Your task to perform on an android device: turn on translation in the chrome app Image 0: 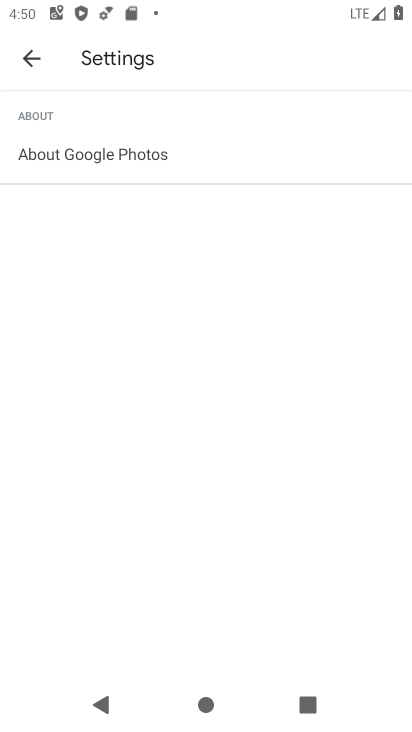
Step 0: press home button
Your task to perform on an android device: turn on translation in the chrome app Image 1: 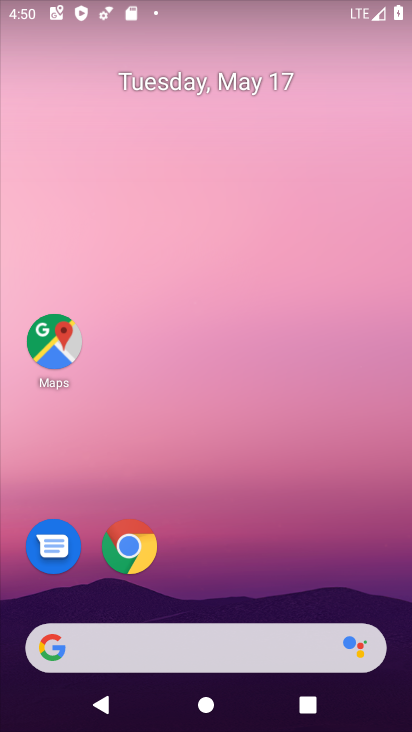
Step 1: drag from (219, 606) to (232, 10)
Your task to perform on an android device: turn on translation in the chrome app Image 2: 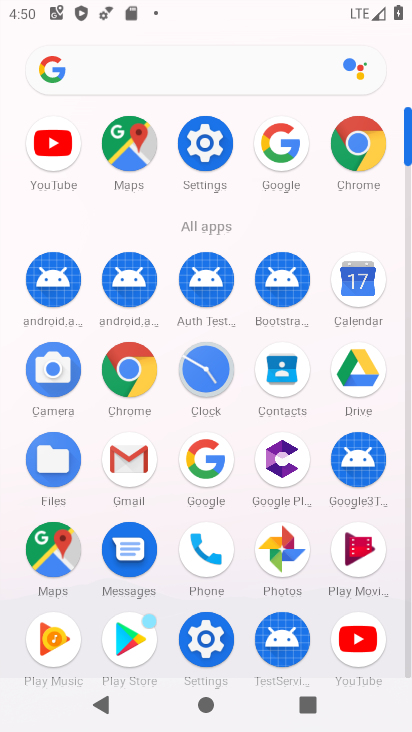
Step 2: click (371, 171)
Your task to perform on an android device: turn on translation in the chrome app Image 3: 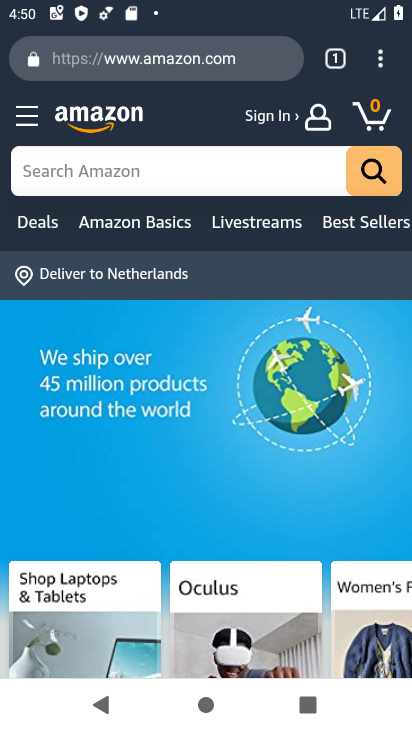
Step 3: click (378, 69)
Your task to perform on an android device: turn on translation in the chrome app Image 4: 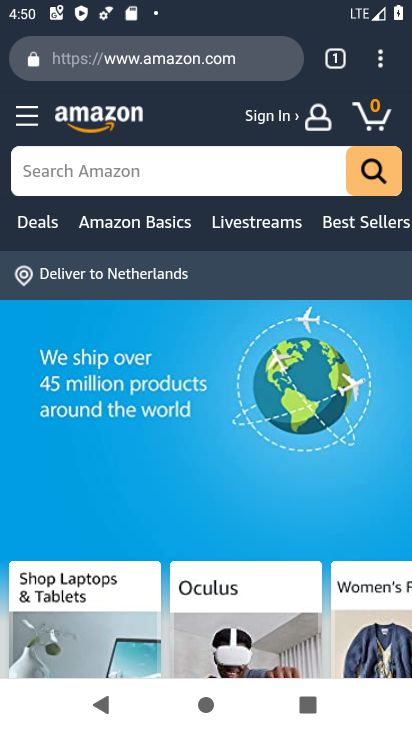
Step 4: click (381, 54)
Your task to perform on an android device: turn on translation in the chrome app Image 5: 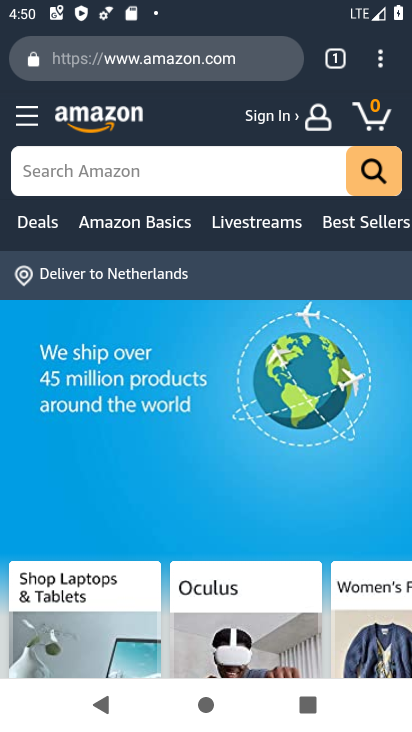
Step 5: click (377, 65)
Your task to perform on an android device: turn on translation in the chrome app Image 6: 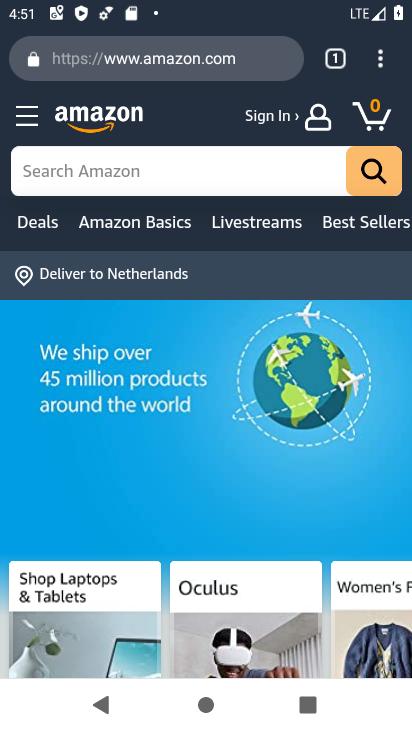
Step 6: click (381, 62)
Your task to perform on an android device: turn on translation in the chrome app Image 7: 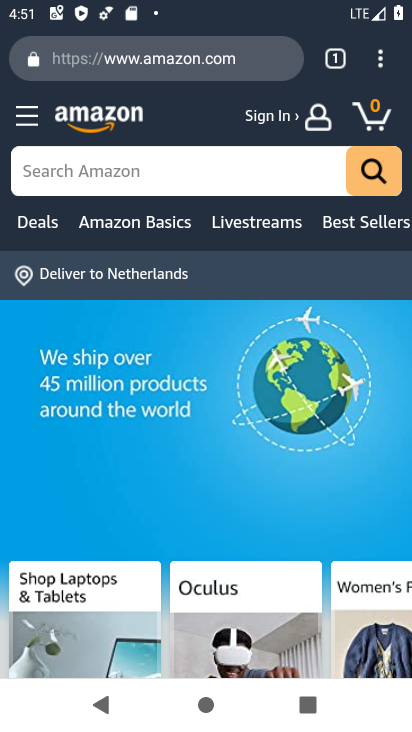
Step 7: click (381, 59)
Your task to perform on an android device: turn on translation in the chrome app Image 8: 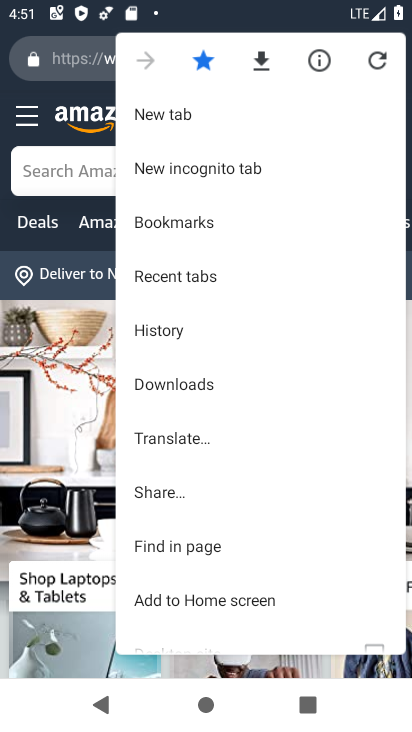
Step 8: click (162, 226)
Your task to perform on an android device: turn on translation in the chrome app Image 9: 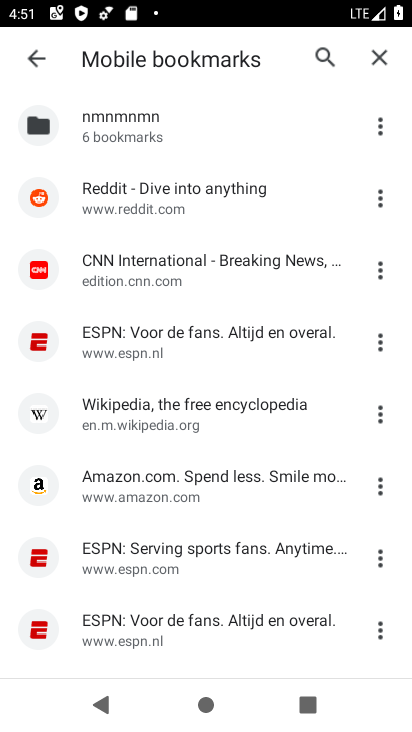
Step 9: click (375, 52)
Your task to perform on an android device: turn on translation in the chrome app Image 10: 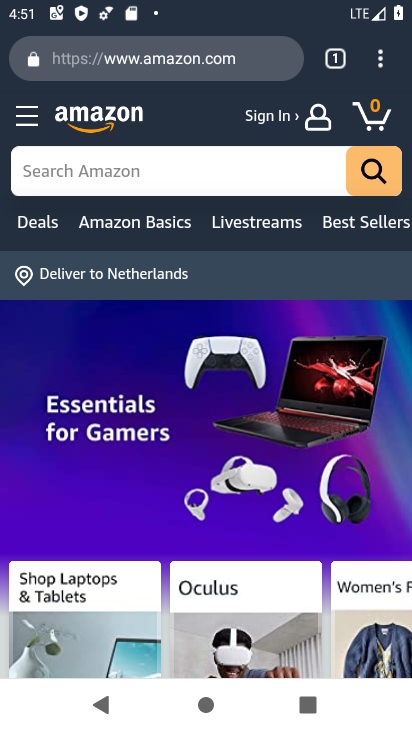
Step 10: click (378, 62)
Your task to perform on an android device: turn on translation in the chrome app Image 11: 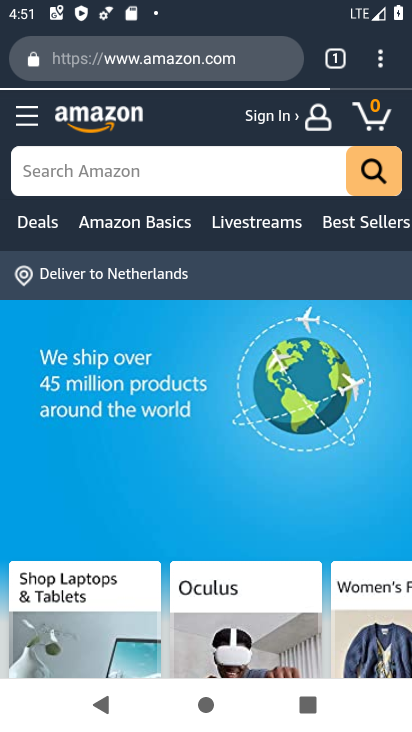
Step 11: click (381, 59)
Your task to perform on an android device: turn on translation in the chrome app Image 12: 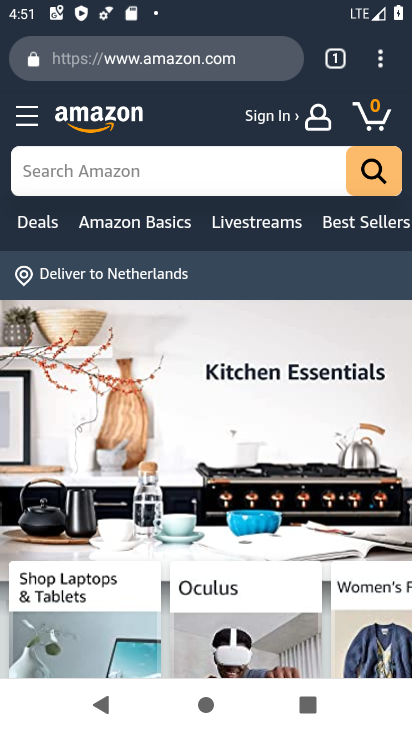
Step 12: click (379, 63)
Your task to perform on an android device: turn on translation in the chrome app Image 13: 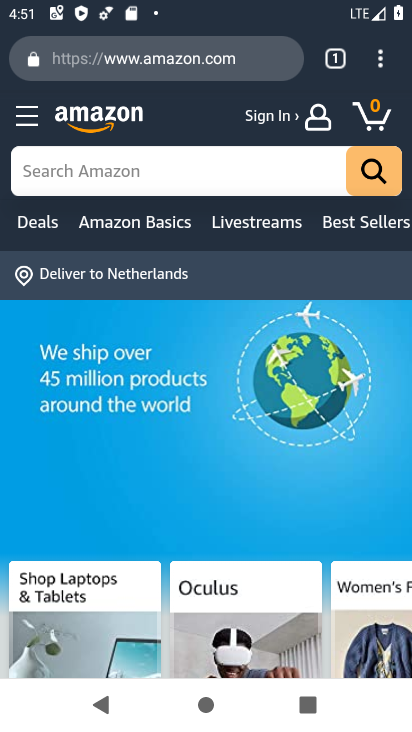
Step 13: click (385, 59)
Your task to perform on an android device: turn on translation in the chrome app Image 14: 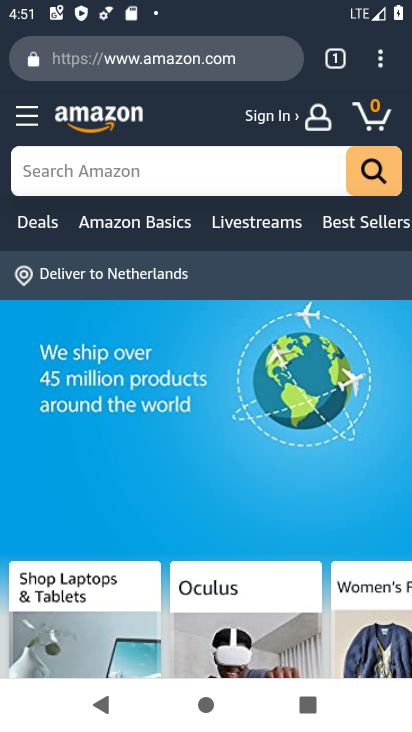
Step 14: click (391, 61)
Your task to perform on an android device: turn on translation in the chrome app Image 15: 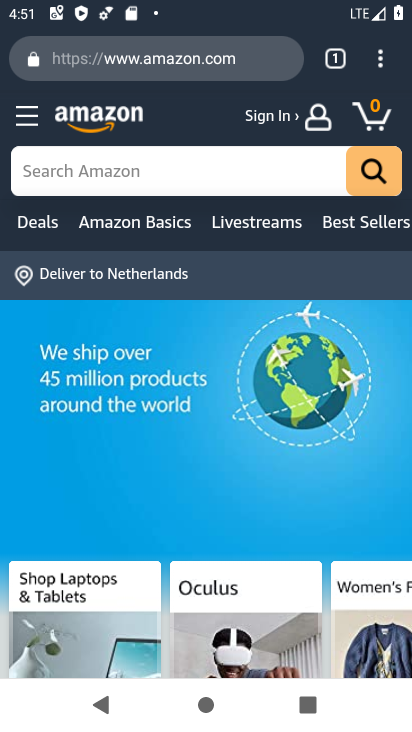
Step 15: click (385, 60)
Your task to perform on an android device: turn on translation in the chrome app Image 16: 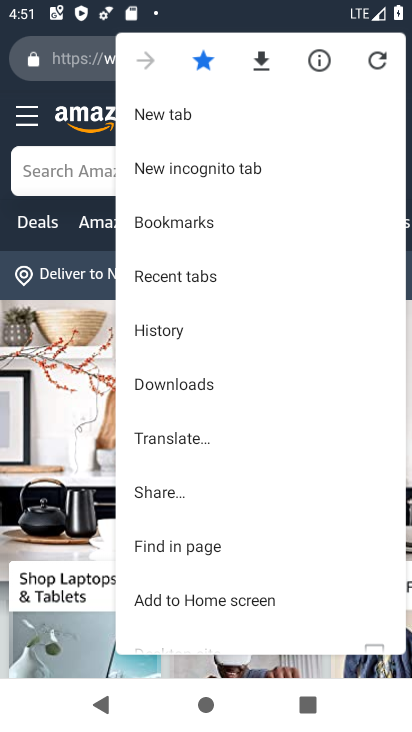
Step 16: drag from (192, 586) to (223, 197)
Your task to perform on an android device: turn on translation in the chrome app Image 17: 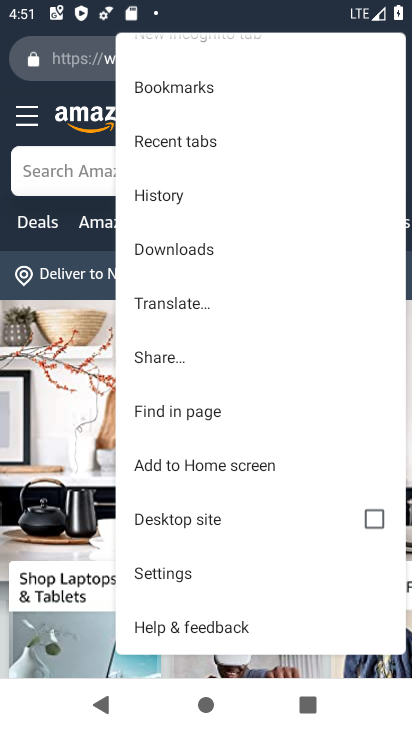
Step 17: click (172, 583)
Your task to perform on an android device: turn on translation in the chrome app Image 18: 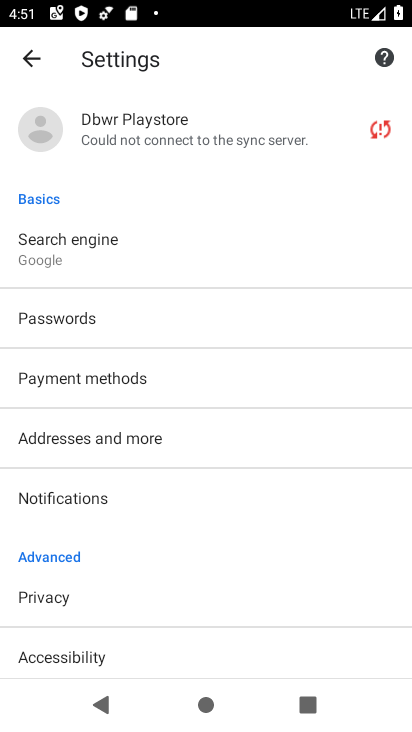
Step 18: drag from (73, 632) to (112, 301)
Your task to perform on an android device: turn on translation in the chrome app Image 19: 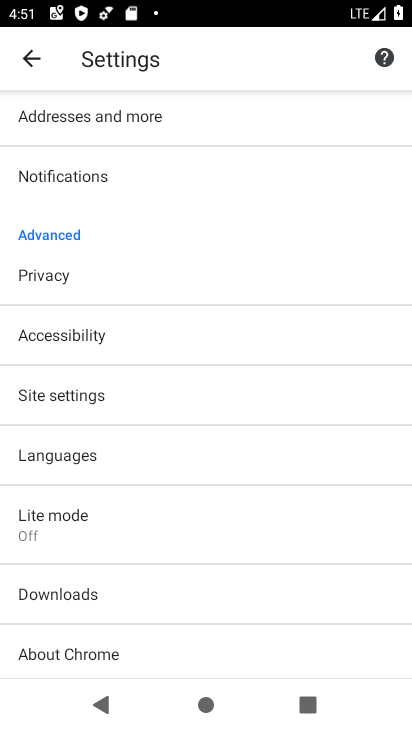
Step 19: click (71, 460)
Your task to perform on an android device: turn on translation in the chrome app Image 20: 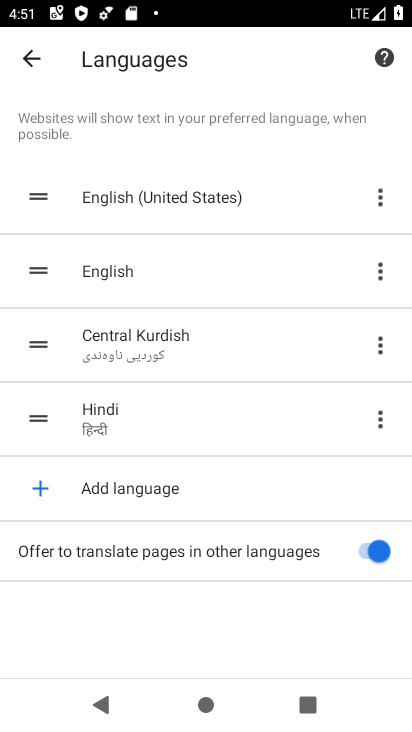
Step 20: task complete